Your task to perform on an android device: Open Yahoo.com Image 0: 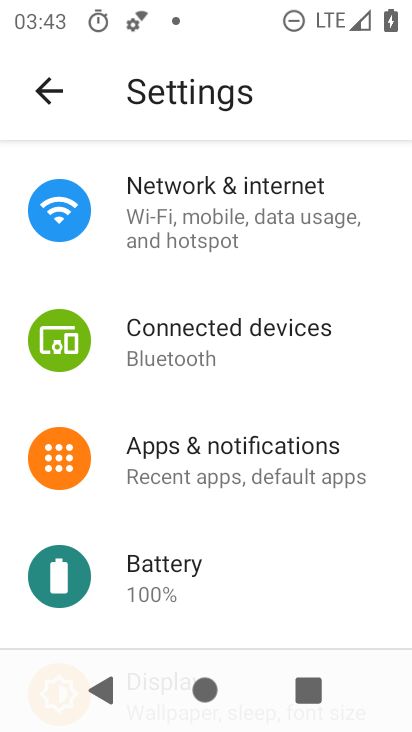
Step 0: press home button
Your task to perform on an android device: Open Yahoo.com Image 1: 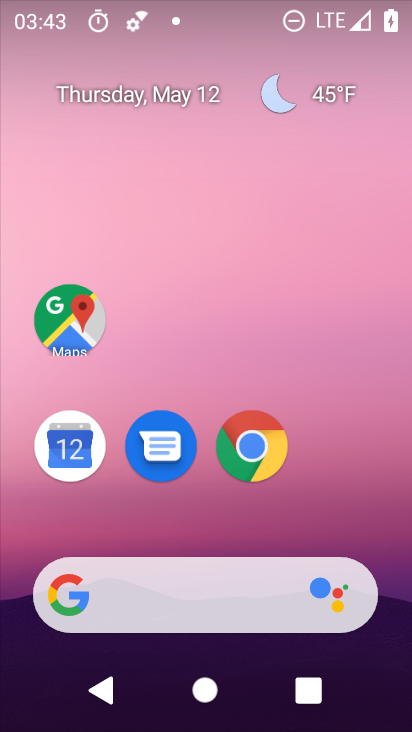
Step 1: click (235, 462)
Your task to perform on an android device: Open Yahoo.com Image 2: 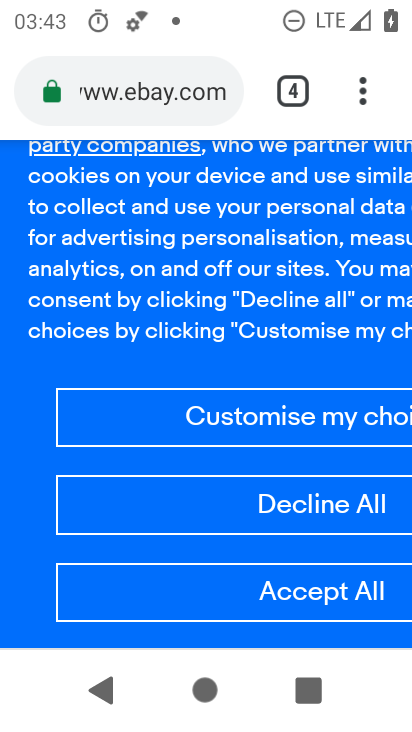
Step 2: click (290, 100)
Your task to perform on an android device: Open Yahoo.com Image 3: 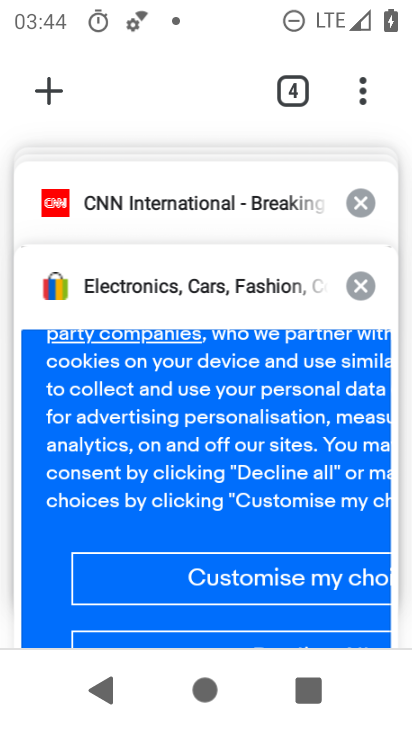
Step 3: click (43, 96)
Your task to perform on an android device: Open Yahoo.com Image 4: 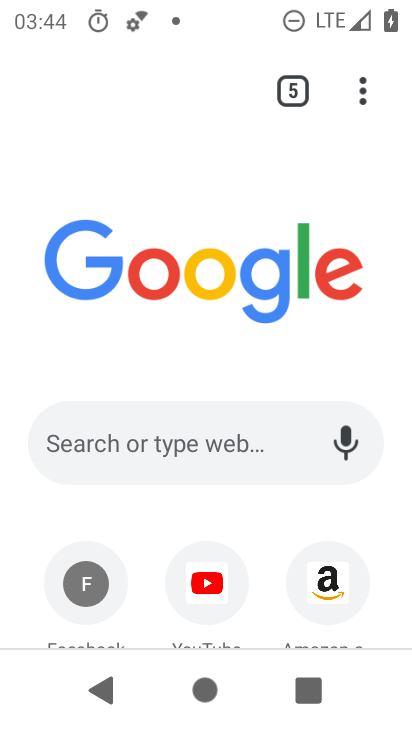
Step 4: drag from (231, 504) to (252, 234)
Your task to perform on an android device: Open Yahoo.com Image 5: 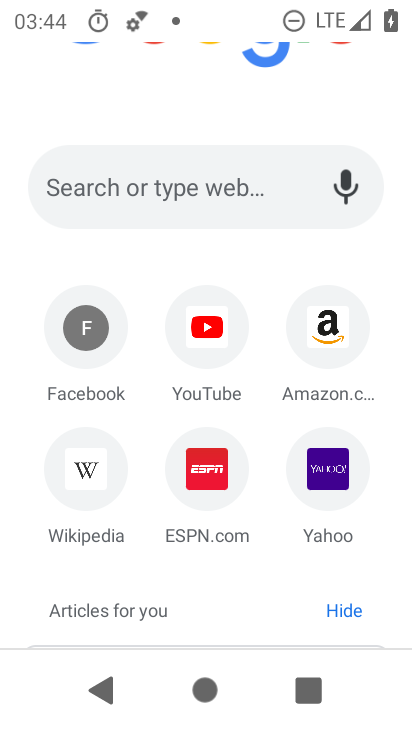
Step 5: click (306, 478)
Your task to perform on an android device: Open Yahoo.com Image 6: 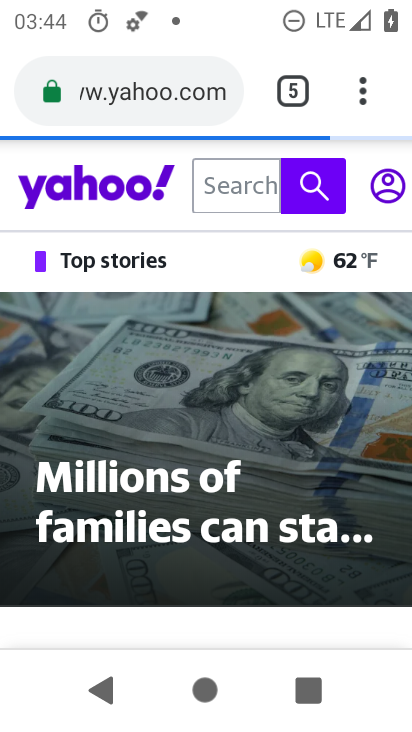
Step 6: task complete